Your task to perform on an android device: open chrome and create a bookmark for the current page Image 0: 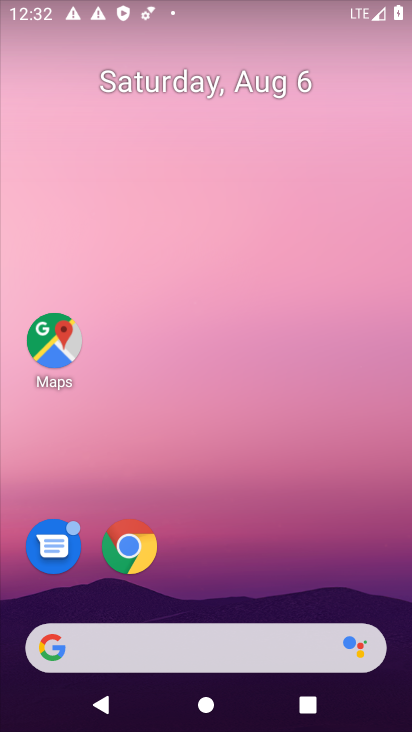
Step 0: click (129, 545)
Your task to perform on an android device: open chrome and create a bookmark for the current page Image 1: 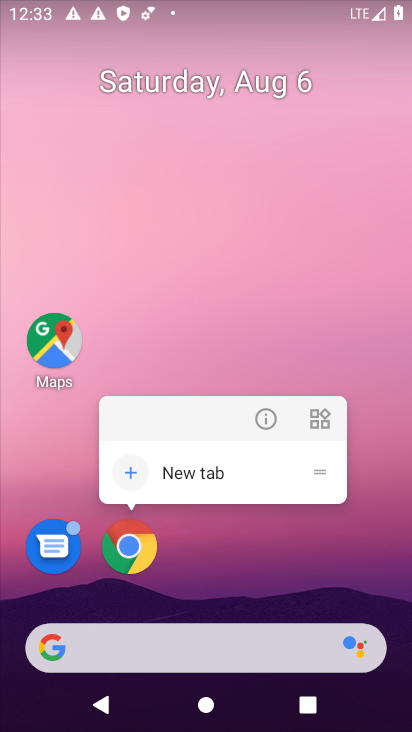
Step 1: click (129, 548)
Your task to perform on an android device: open chrome and create a bookmark for the current page Image 2: 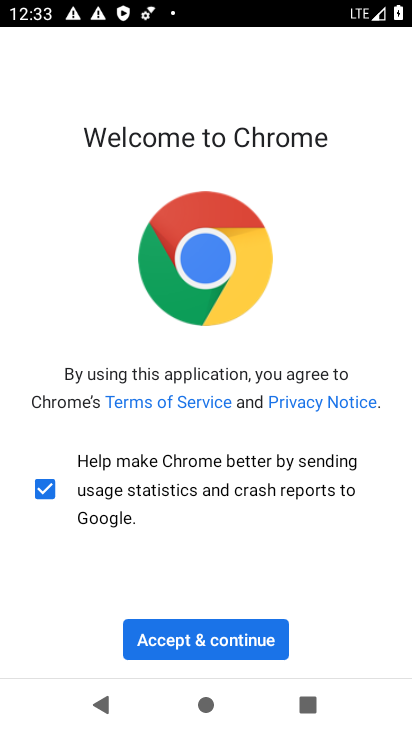
Step 2: click (224, 644)
Your task to perform on an android device: open chrome and create a bookmark for the current page Image 3: 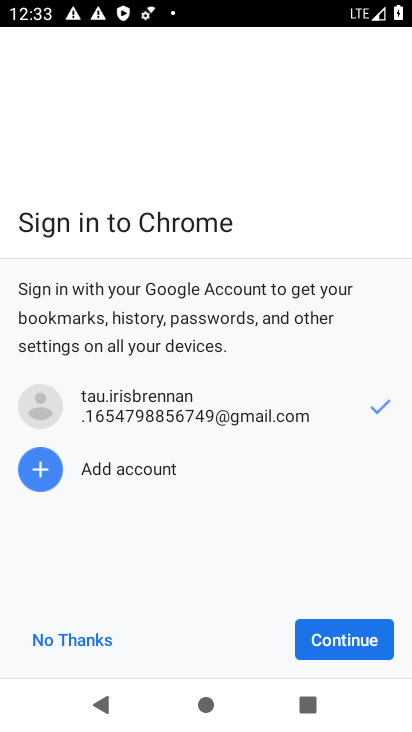
Step 3: click (345, 638)
Your task to perform on an android device: open chrome and create a bookmark for the current page Image 4: 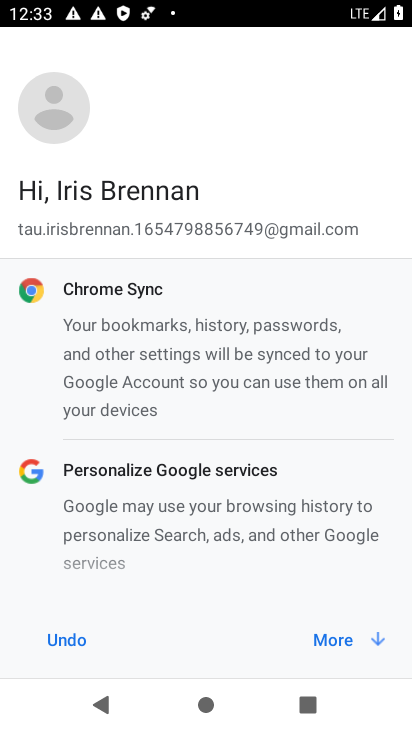
Step 4: click (345, 638)
Your task to perform on an android device: open chrome and create a bookmark for the current page Image 5: 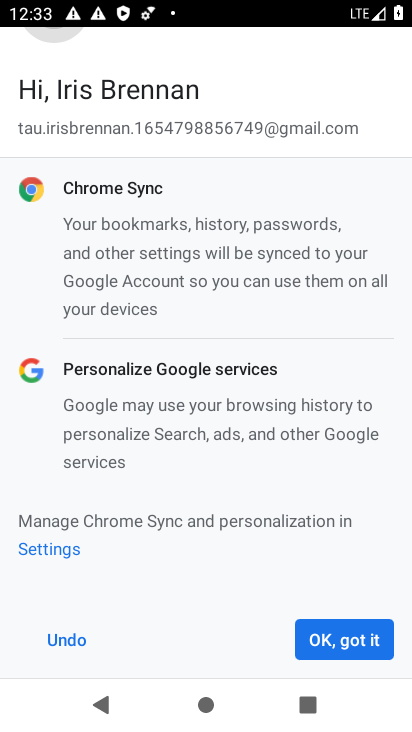
Step 5: click (352, 638)
Your task to perform on an android device: open chrome and create a bookmark for the current page Image 6: 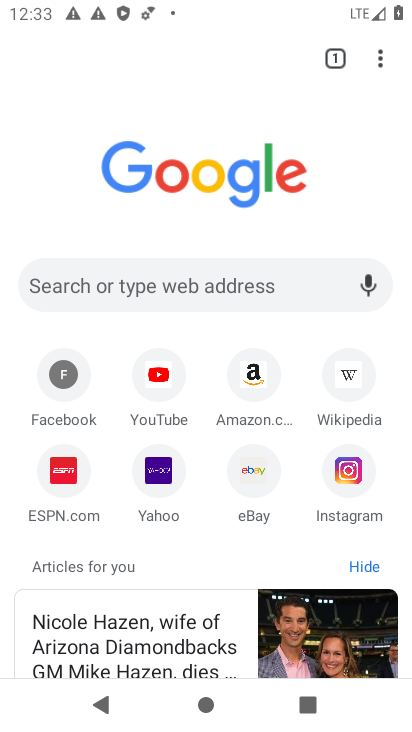
Step 6: click (376, 66)
Your task to perform on an android device: open chrome and create a bookmark for the current page Image 7: 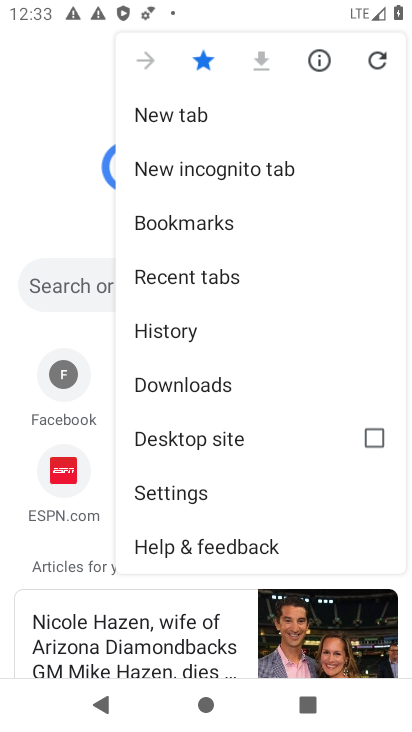
Step 7: task complete